Your task to perform on an android device: check google app version Image 0: 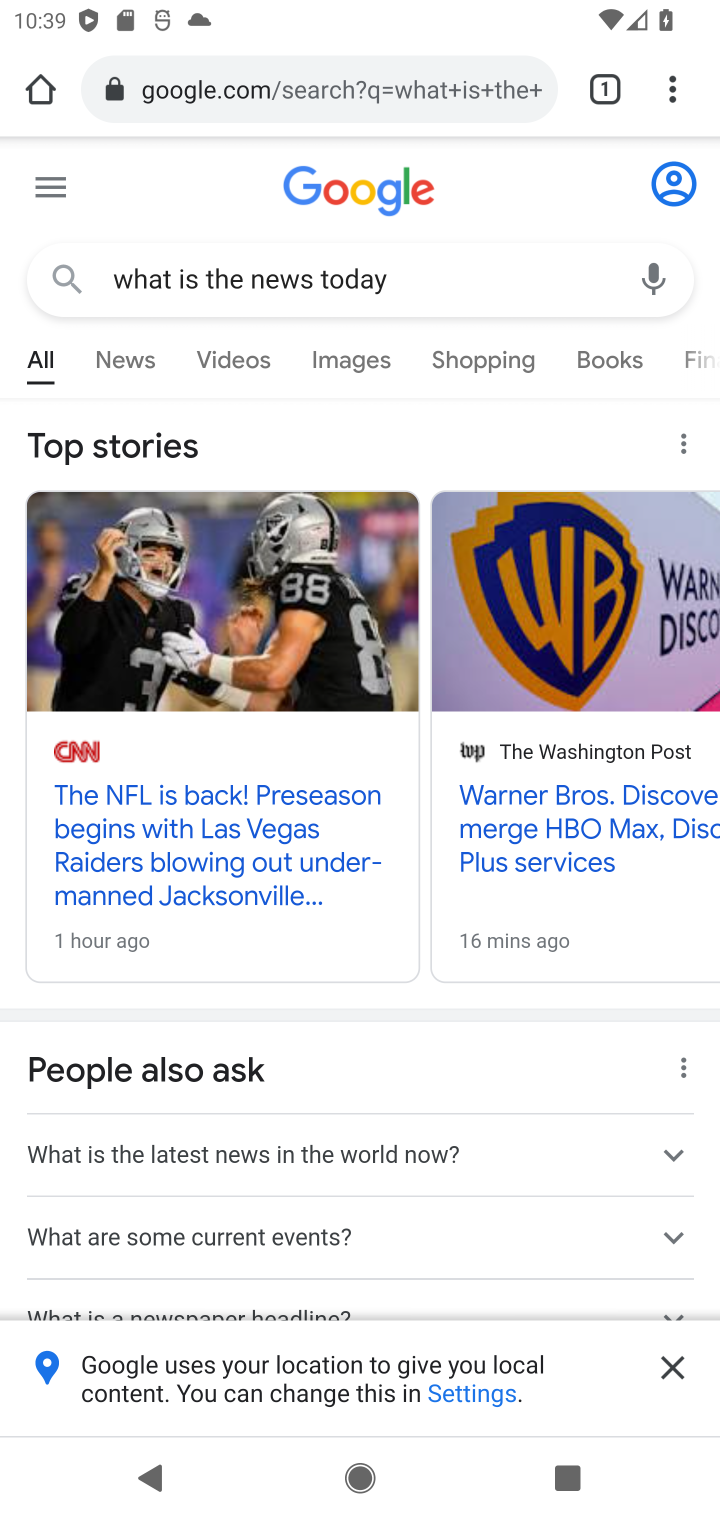
Step 0: press home button
Your task to perform on an android device: check google app version Image 1: 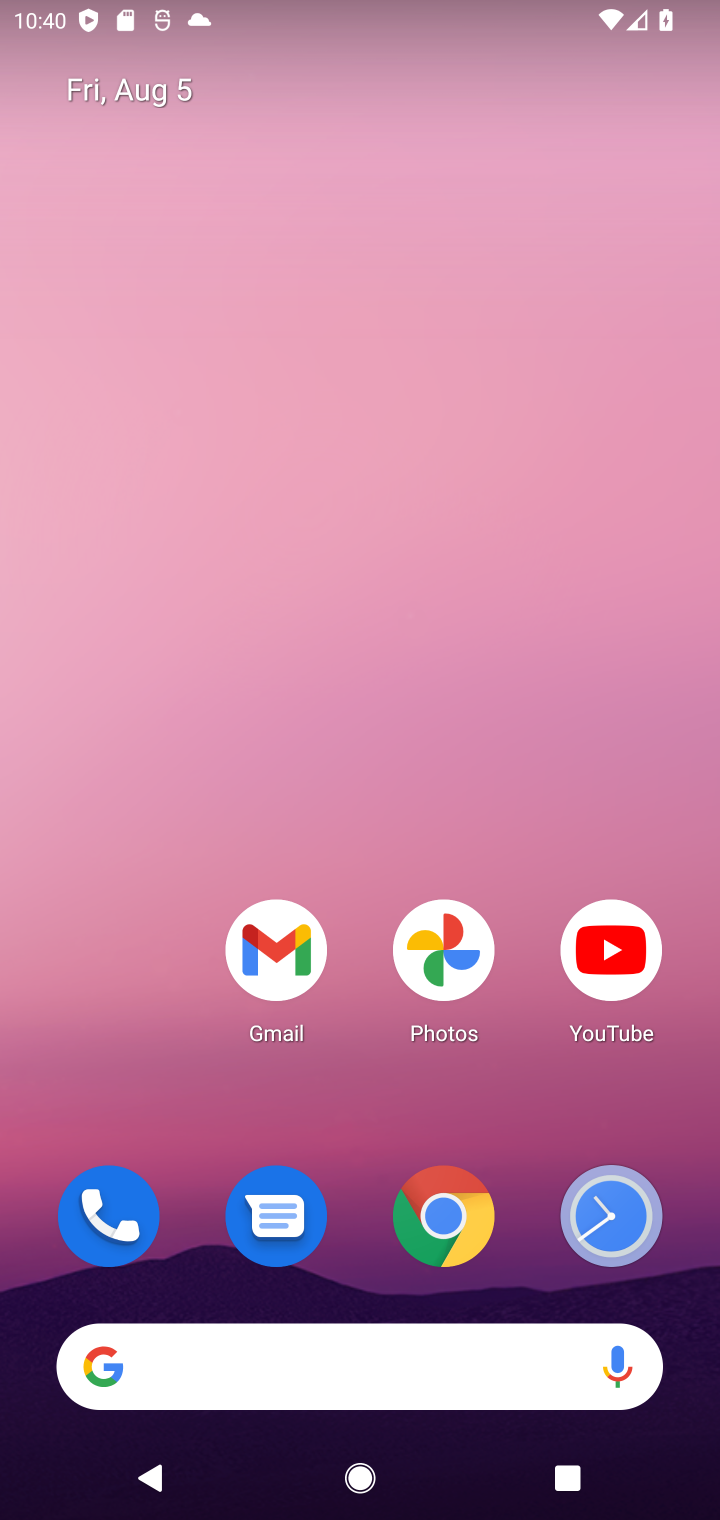
Step 1: drag from (454, 1378) to (481, 209)
Your task to perform on an android device: check google app version Image 2: 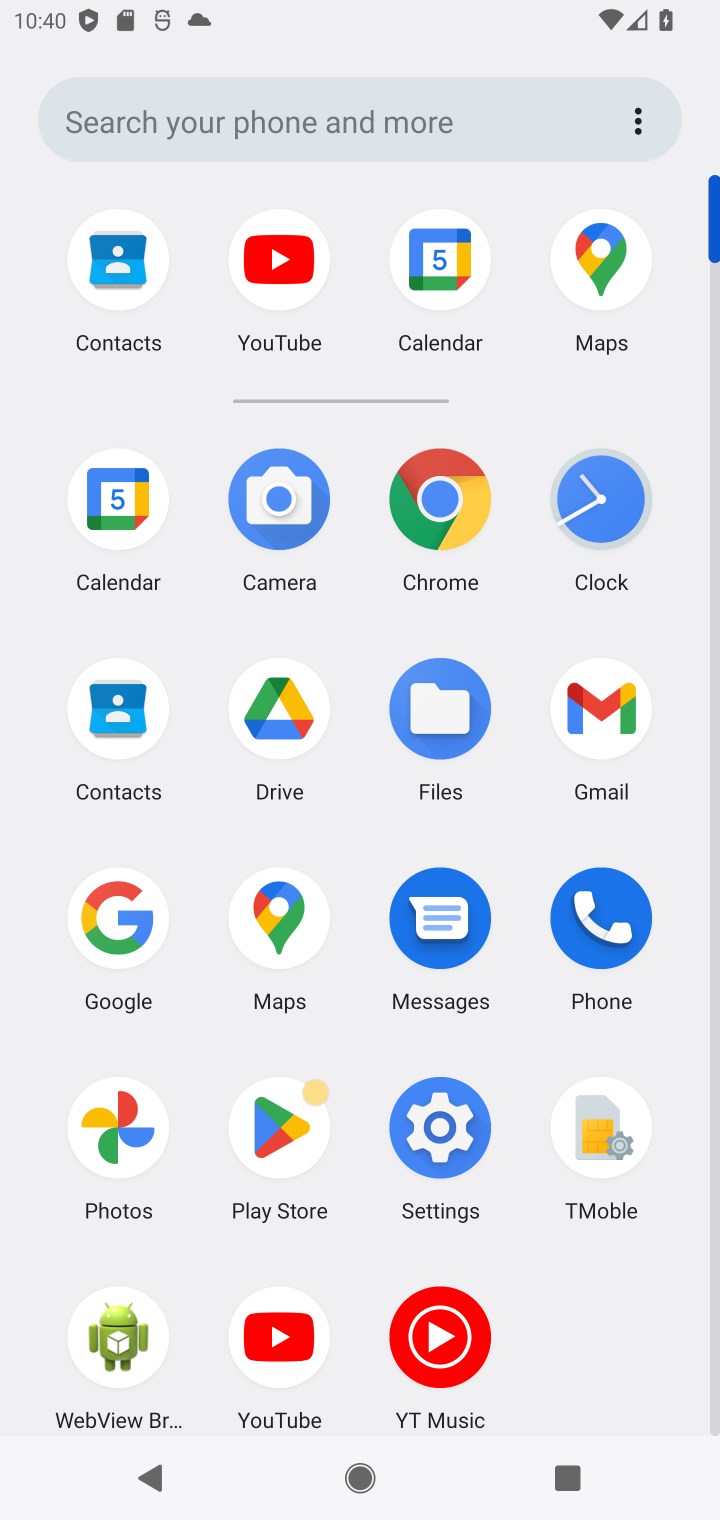
Step 2: click (451, 495)
Your task to perform on an android device: check google app version Image 3: 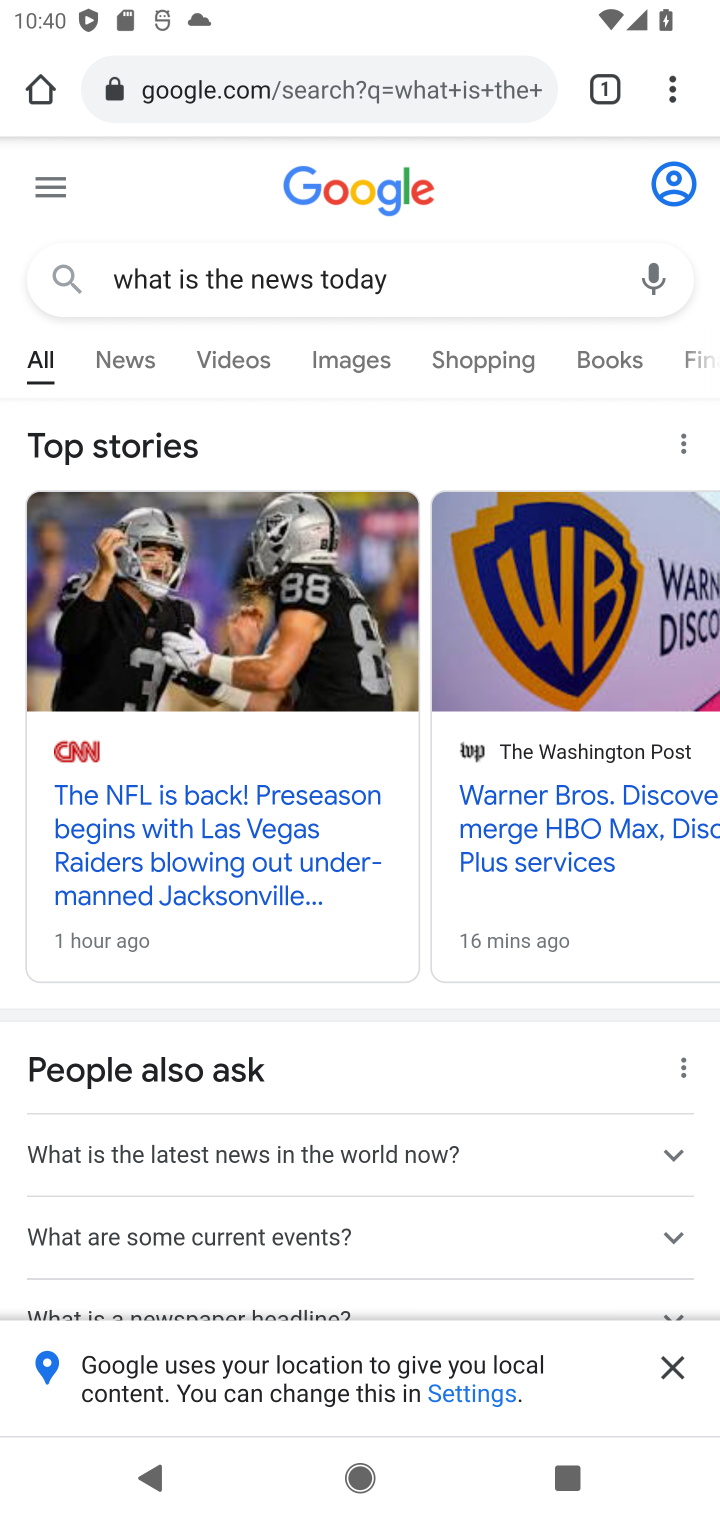
Step 3: click (675, 82)
Your task to perform on an android device: check google app version Image 4: 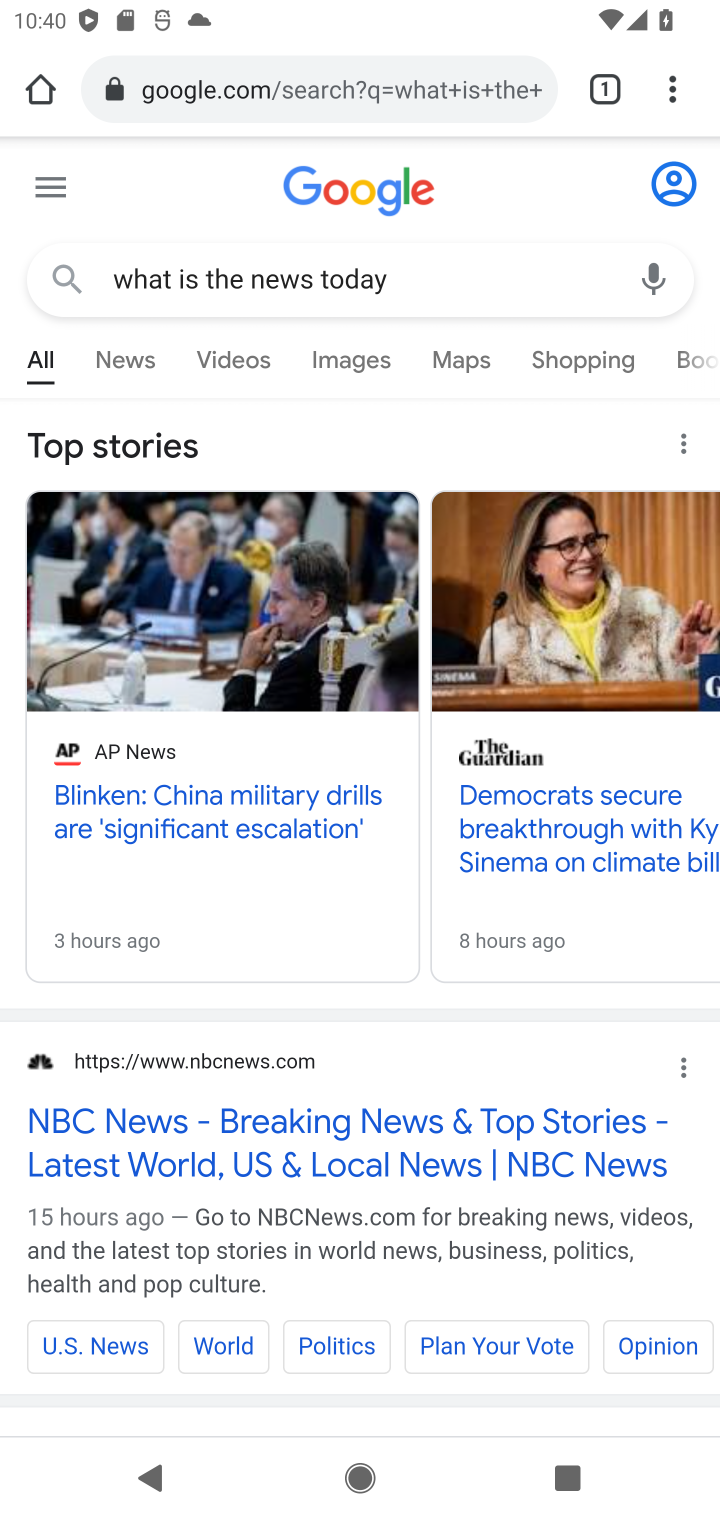
Step 4: click (685, 86)
Your task to perform on an android device: check google app version Image 5: 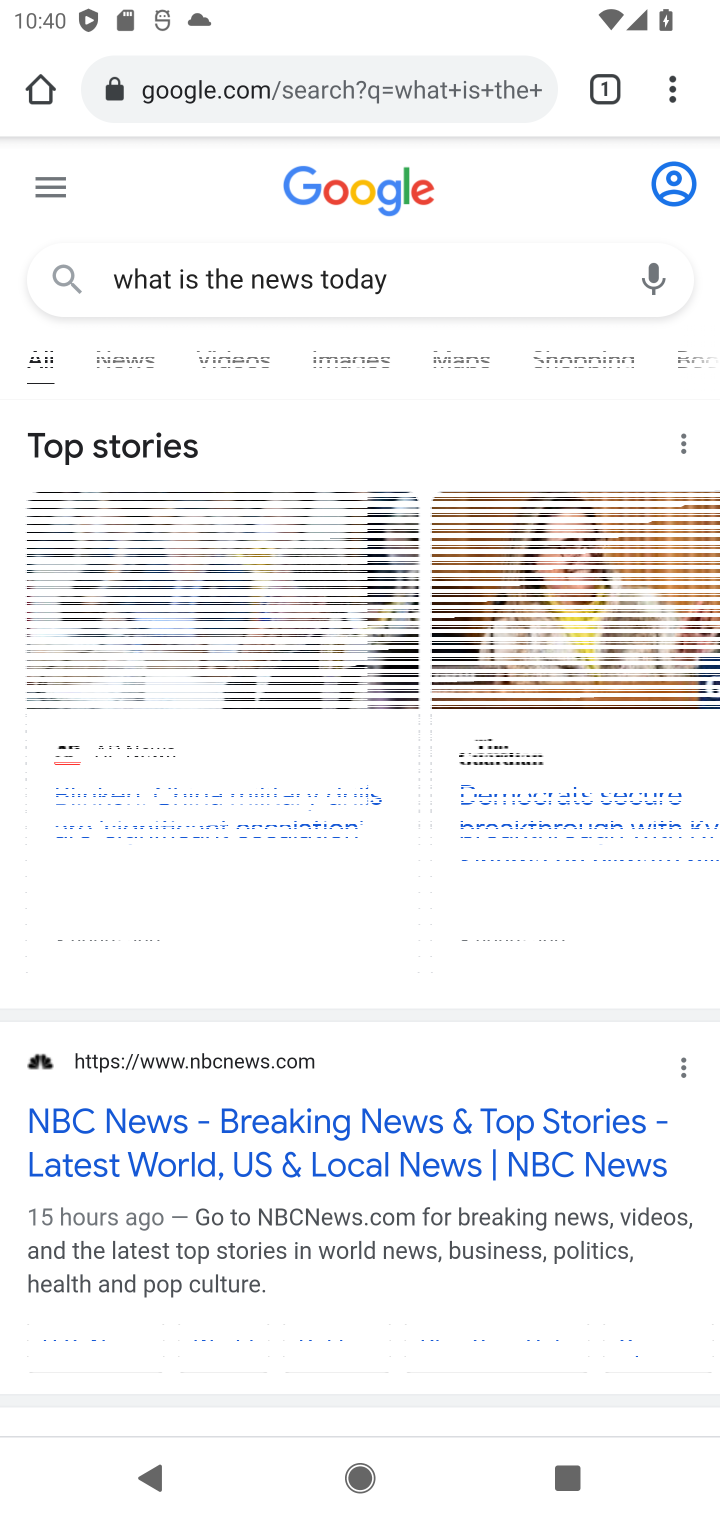
Step 5: drag from (685, 86) to (372, 1306)
Your task to perform on an android device: check google app version Image 6: 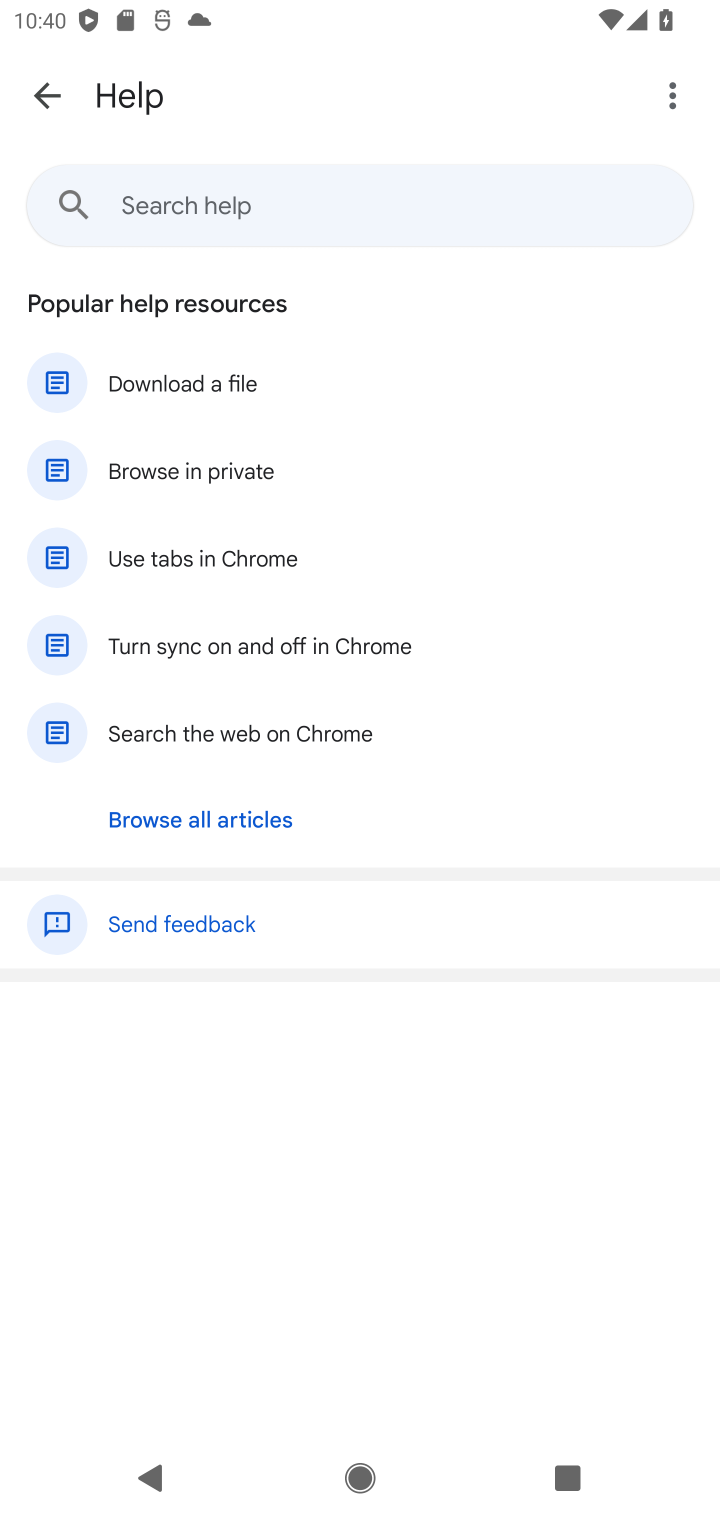
Step 6: click (670, 91)
Your task to perform on an android device: check google app version Image 7: 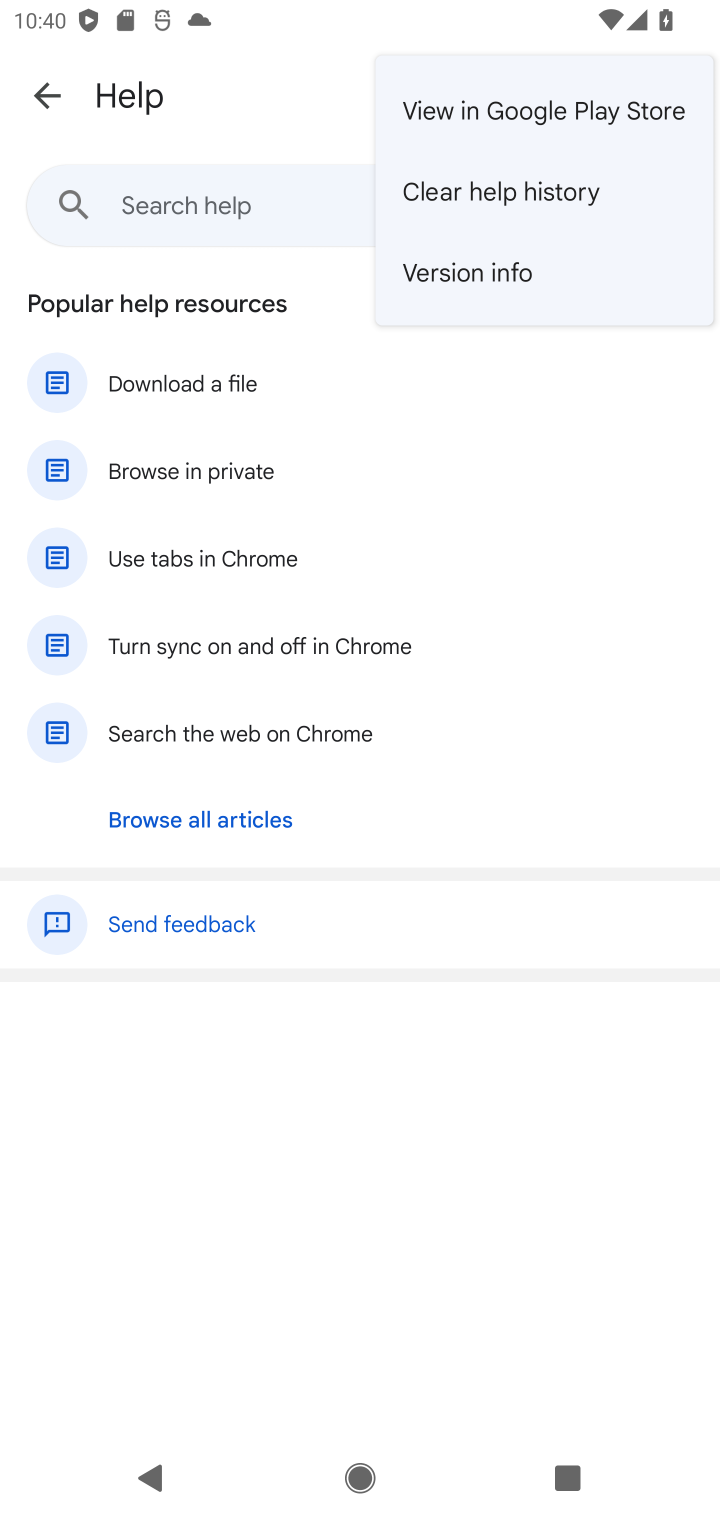
Step 7: click (479, 260)
Your task to perform on an android device: check google app version Image 8: 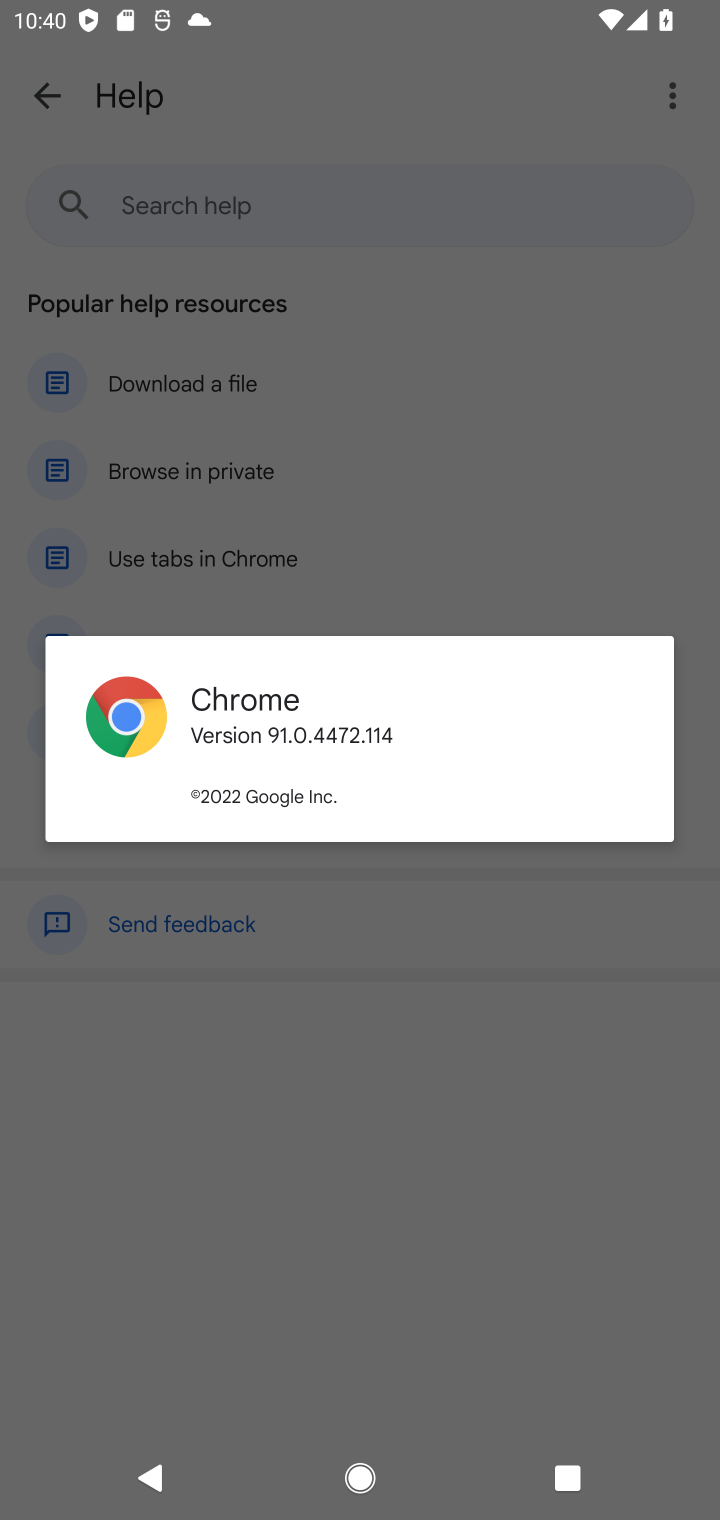
Step 8: task complete